Your task to perform on an android device: Open Chrome and go to the settings page Image 0: 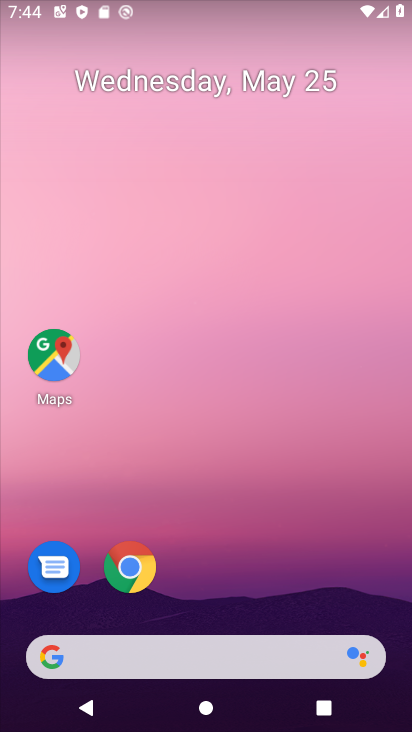
Step 0: click (129, 572)
Your task to perform on an android device: Open Chrome and go to the settings page Image 1: 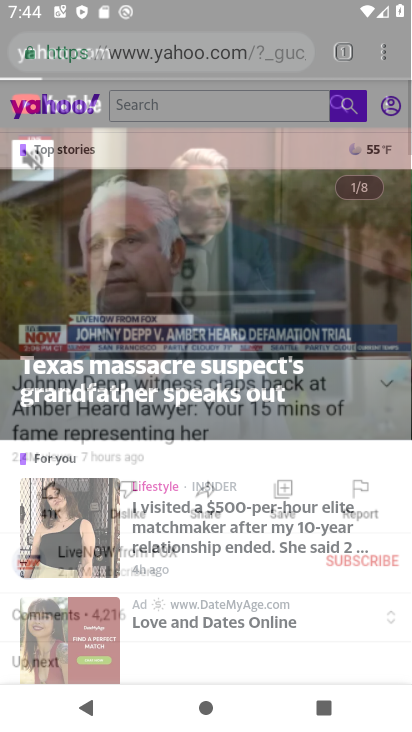
Step 1: click (386, 56)
Your task to perform on an android device: Open Chrome and go to the settings page Image 2: 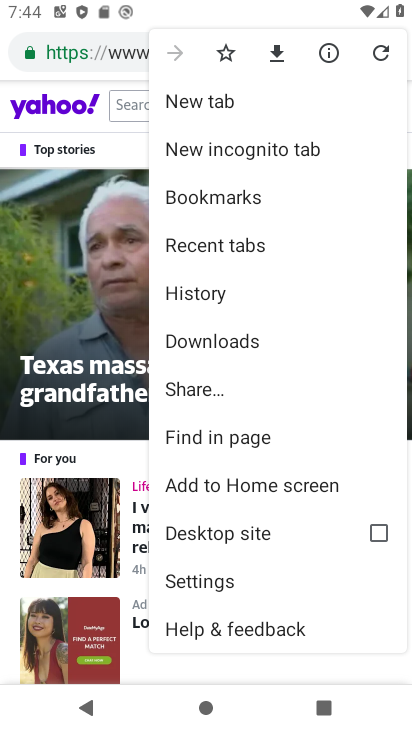
Step 2: click (238, 574)
Your task to perform on an android device: Open Chrome and go to the settings page Image 3: 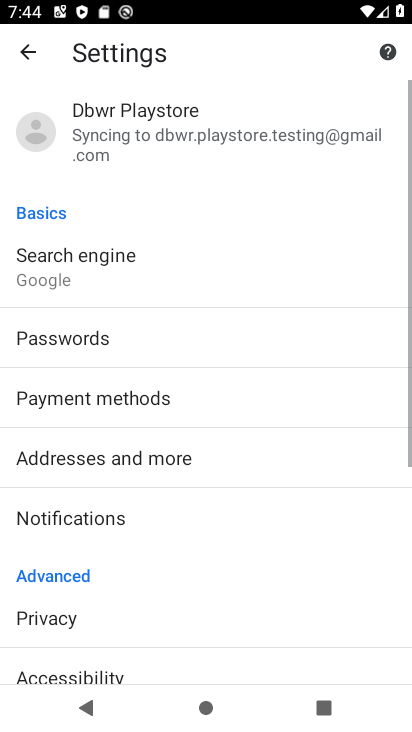
Step 3: task complete